Your task to perform on an android device: check storage Image 0: 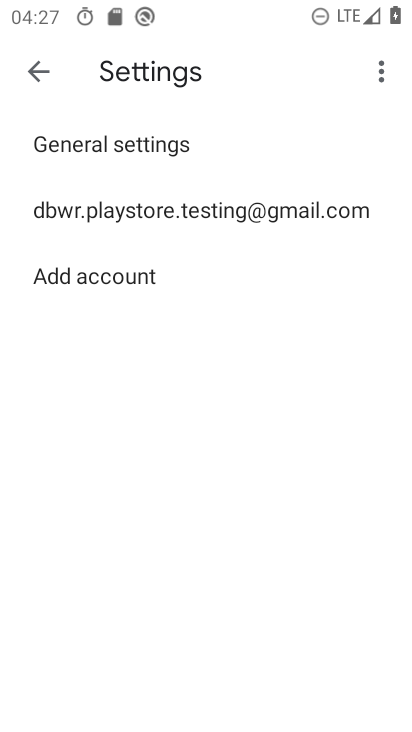
Step 0: press home button
Your task to perform on an android device: check storage Image 1: 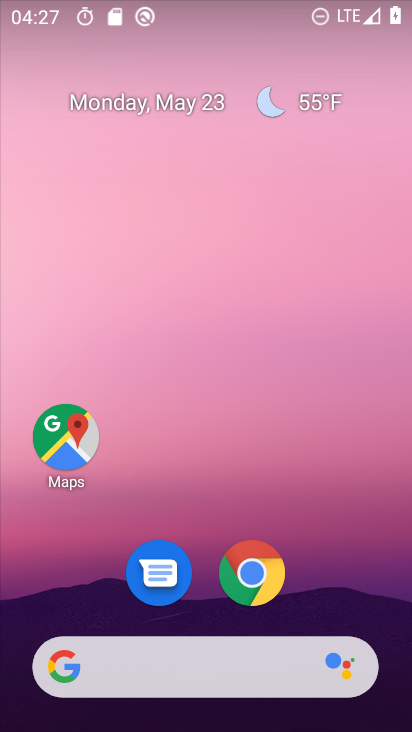
Step 1: drag from (333, 607) to (295, 96)
Your task to perform on an android device: check storage Image 2: 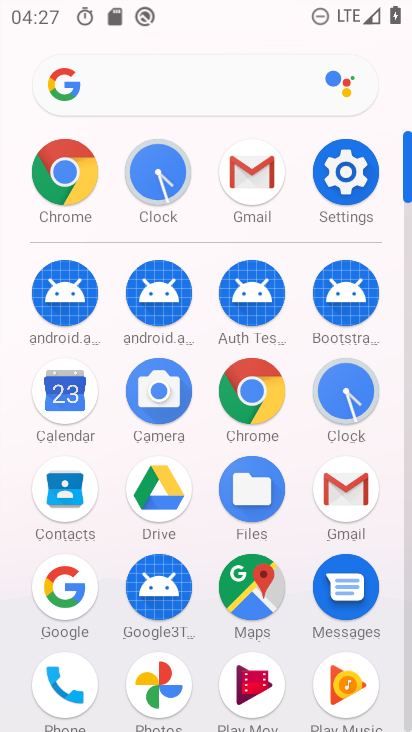
Step 2: click (341, 185)
Your task to perform on an android device: check storage Image 3: 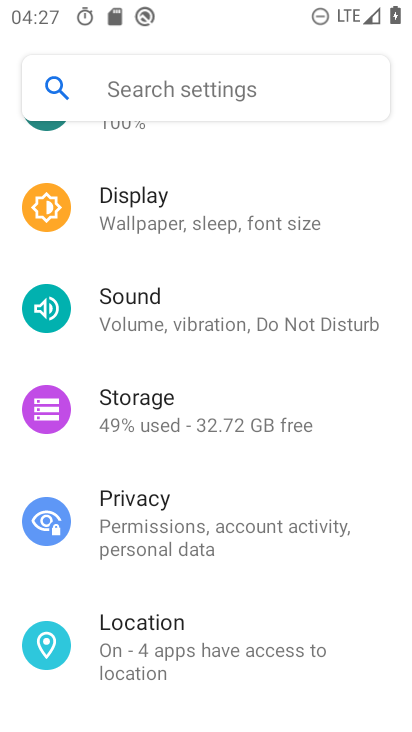
Step 3: click (217, 417)
Your task to perform on an android device: check storage Image 4: 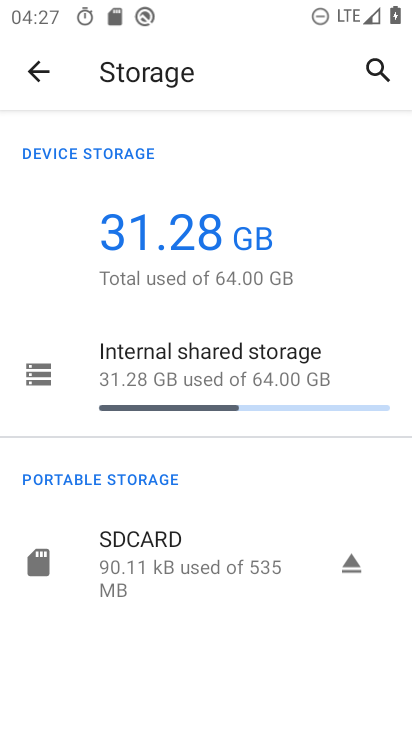
Step 4: task complete